Your task to perform on an android device: open device folders in google photos Image 0: 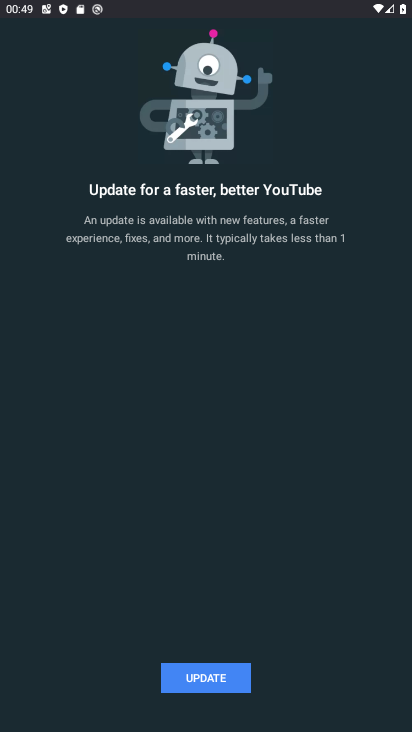
Step 0: press back button
Your task to perform on an android device: open device folders in google photos Image 1: 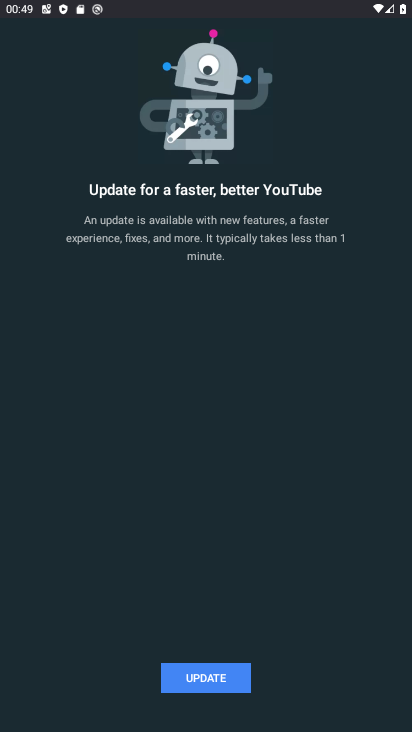
Step 1: press back button
Your task to perform on an android device: open device folders in google photos Image 2: 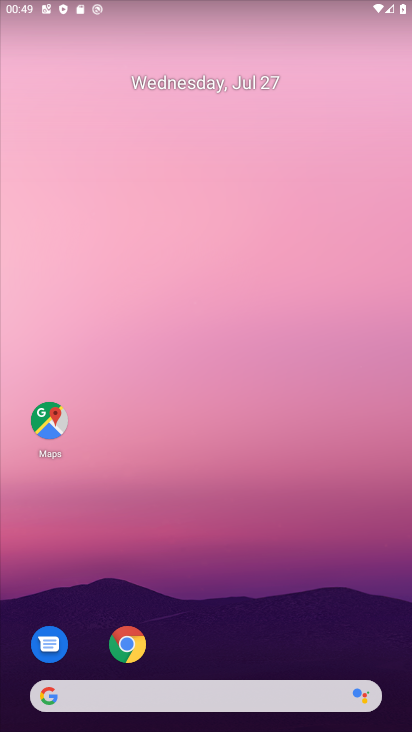
Step 2: drag from (237, 665) to (289, 229)
Your task to perform on an android device: open device folders in google photos Image 3: 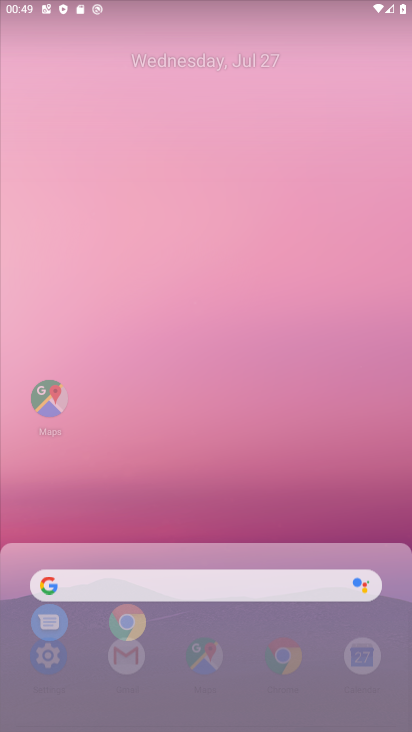
Step 3: drag from (294, 368) to (280, 24)
Your task to perform on an android device: open device folders in google photos Image 4: 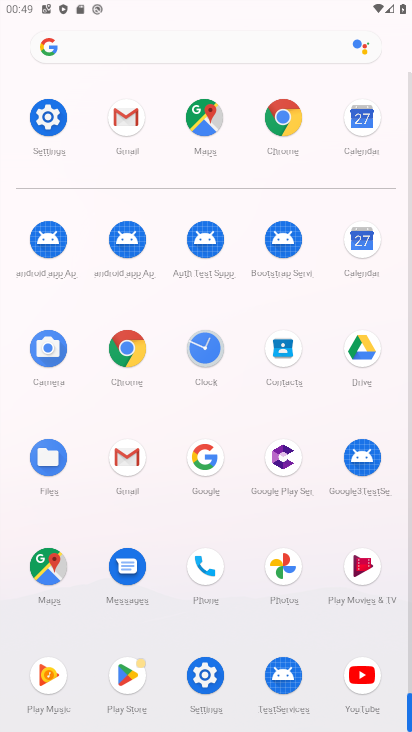
Step 4: click (281, 570)
Your task to perform on an android device: open device folders in google photos Image 5: 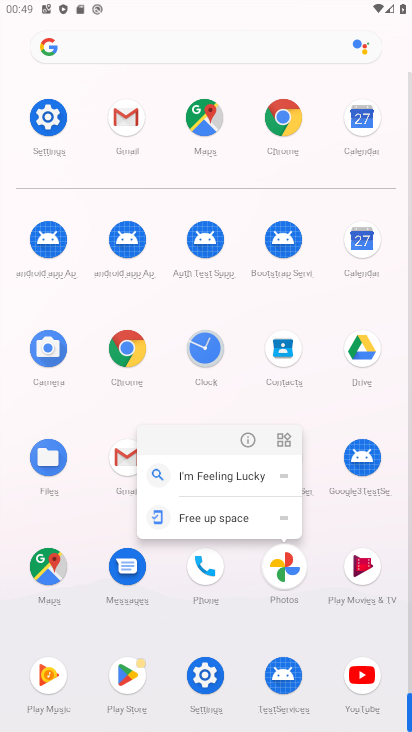
Step 5: click (284, 568)
Your task to perform on an android device: open device folders in google photos Image 6: 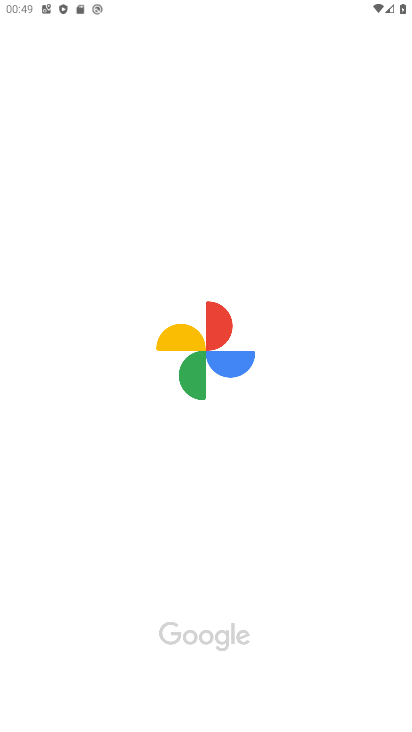
Step 6: click (267, 556)
Your task to perform on an android device: open device folders in google photos Image 7: 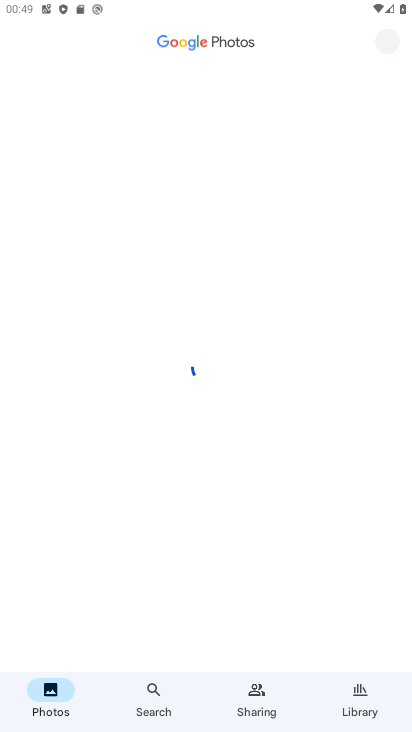
Step 7: click (243, 519)
Your task to perform on an android device: open device folders in google photos Image 8: 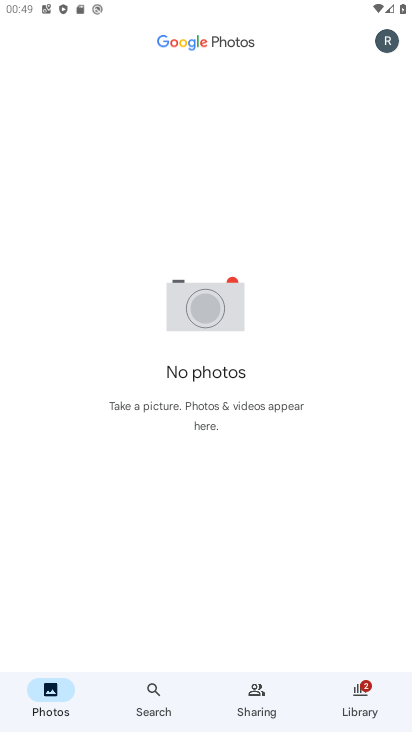
Step 8: click (57, 681)
Your task to perform on an android device: open device folders in google photos Image 9: 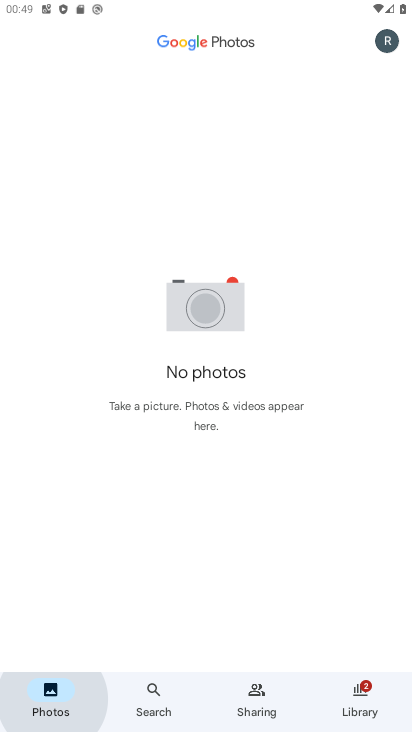
Step 9: click (55, 682)
Your task to perform on an android device: open device folders in google photos Image 10: 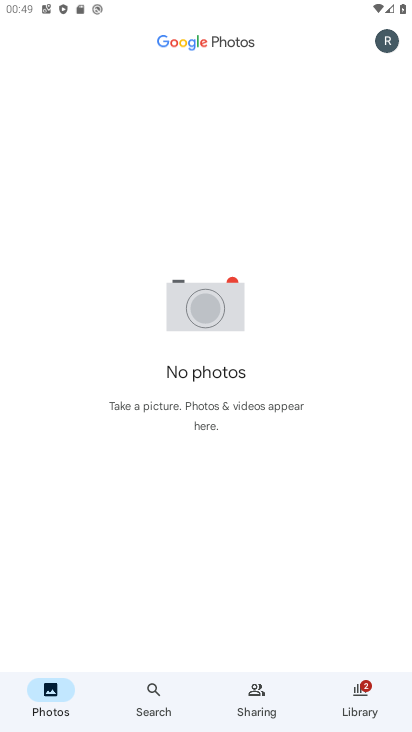
Step 10: task complete